Your task to perform on an android device: toggle show notifications on the lock screen Image 0: 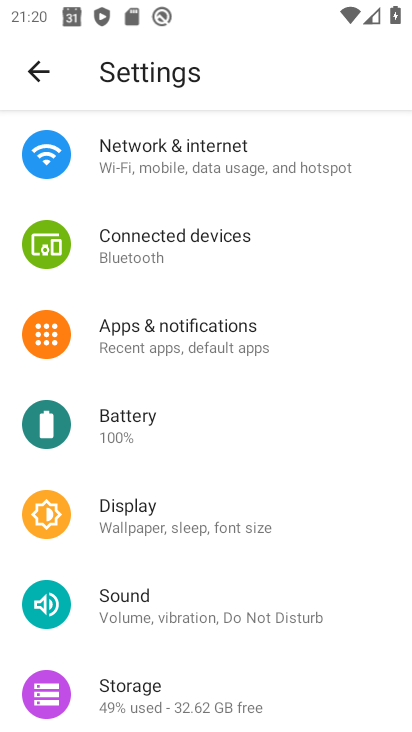
Step 0: drag from (361, 589) to (333, 249)
Your task to perform on an android device: toggle show notifications on the lock screen Image 1: 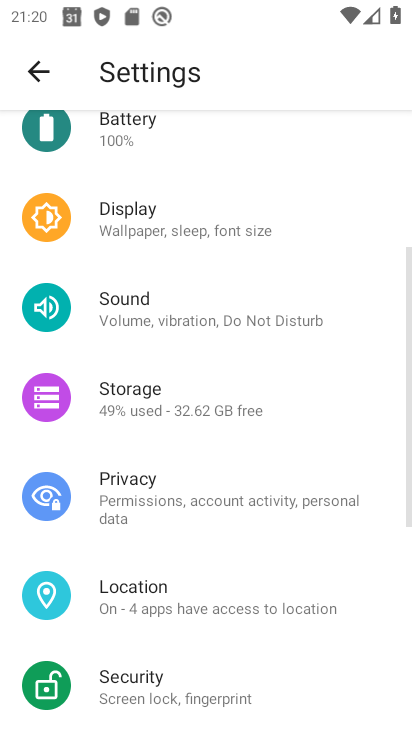
Step 1: drag from (295, 232) to (274, 510)
Your task to perform on an android device: toggle show notifications on the lock screen Image 2: 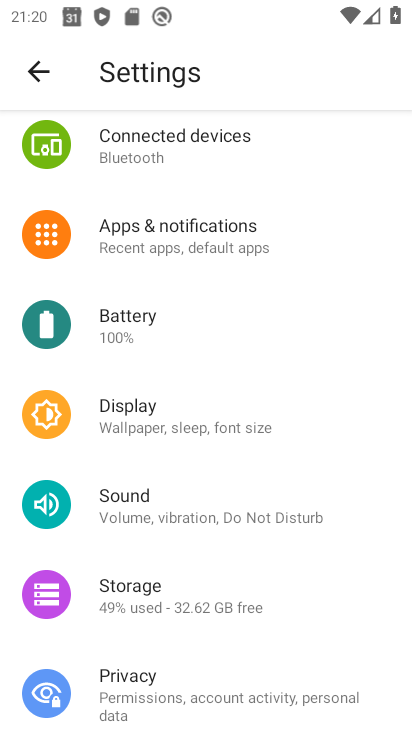
Step 2: click (203, 257)
Your task to perform on an android device: toggle show notifications on the lock screen Image 3: 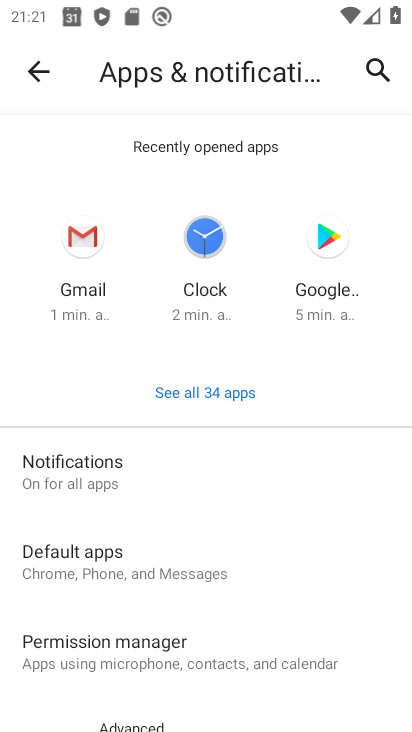
Step 3: click (107, 454)
Your task to perform on an android device: toggle show notifications on the lock screen Image 4: 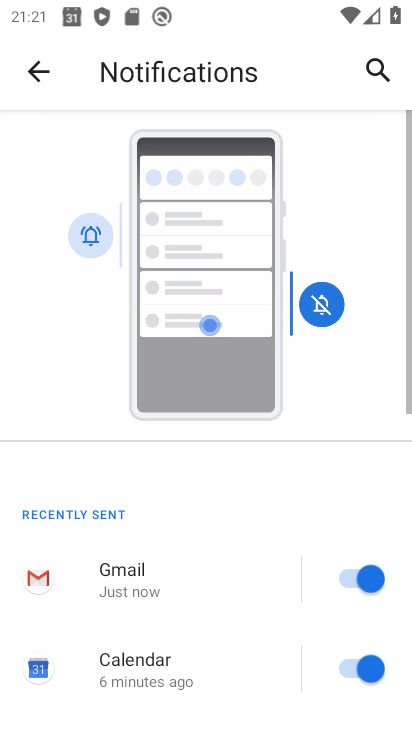
Step 4: drag from (210, 427) to (249, 22)
Your task to perform on an android device: toggle show notifications on the lock screen Image 5: 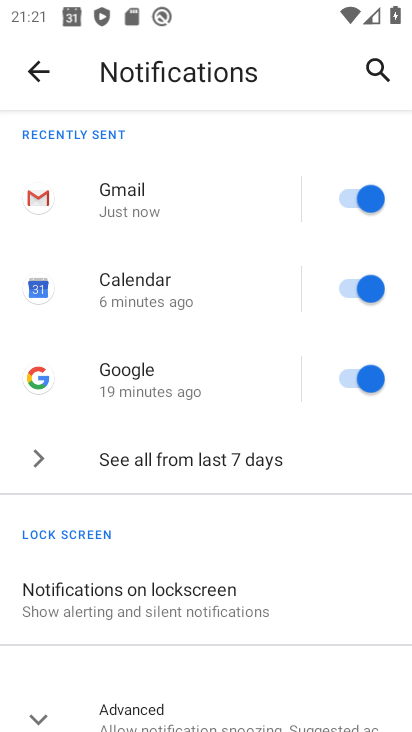
Step 5: drag from (212, 545) to (311, 128)
Your task to perform on an android device: toggle show notifications on the lock screen Image 6: 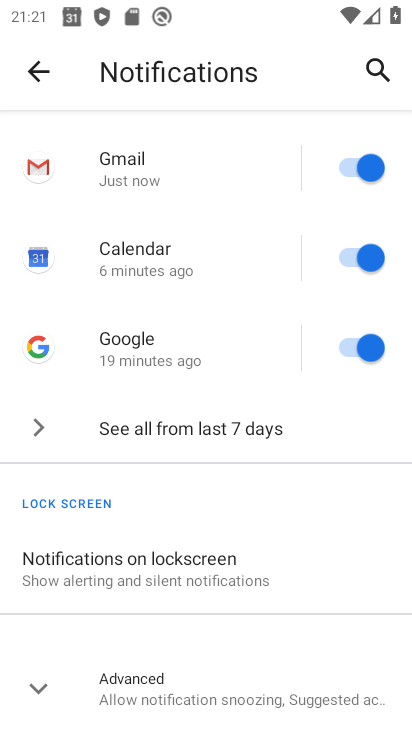
Step 6: click (182, 577)
Your task to perform on an android device: toggle show notifications on the lock screen Image 7: 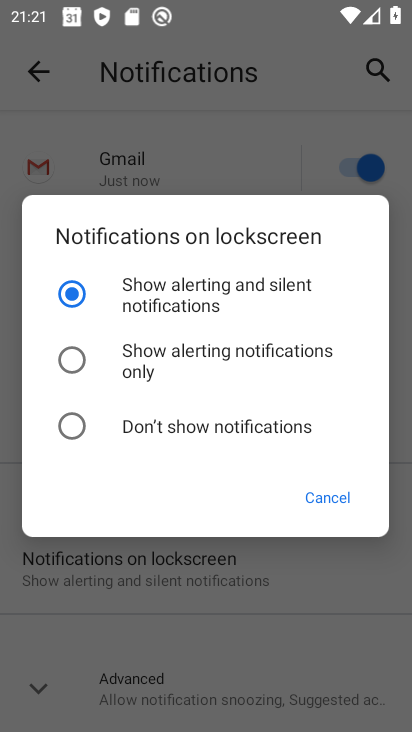
Step 7: click (208, 371)
Your task to perform on an android device: toggle show notifications on the lock screen Image 8: 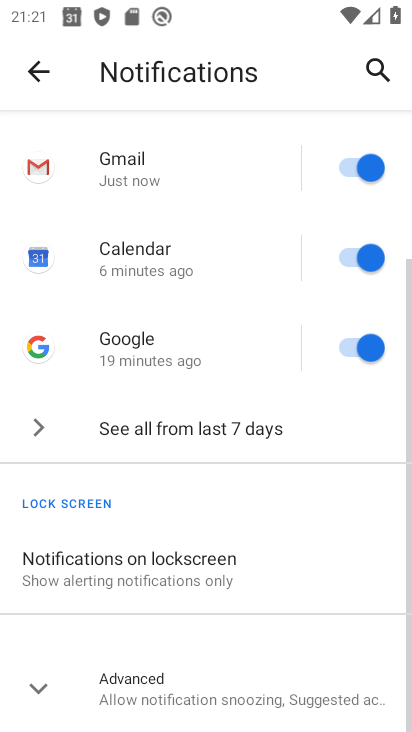
Step 8: task complete